Your task to perform on an android device: open app "Google News" (install if not already installed) Image 0: 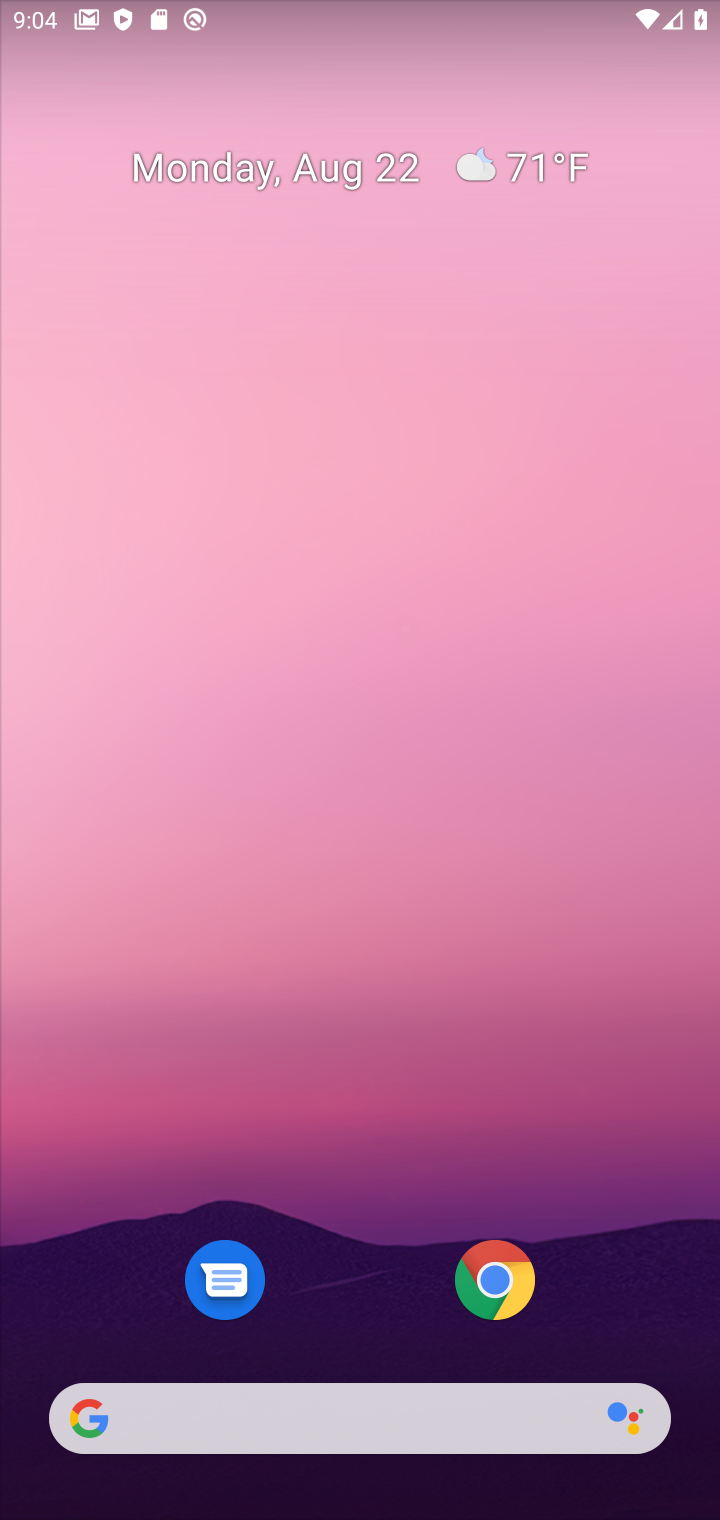
Step 0: drag from (335, 1295) to (604, 217)
Your task to perform on an android device: open app "Google News" (install if not already installed) Image 1: 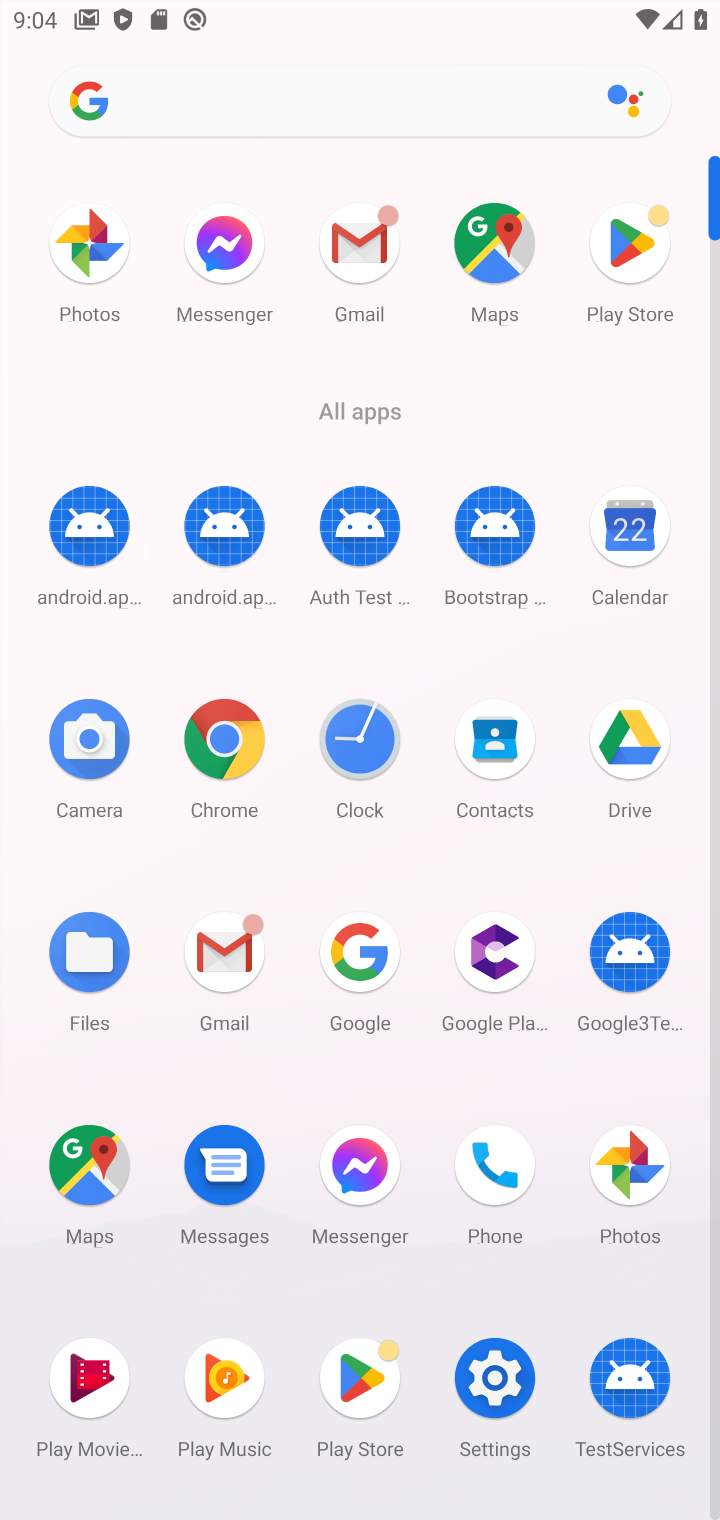
Step 1: click (640, 258)
Your task to perform on an android device: open app "Google News" (install if not already installed) Image 2: 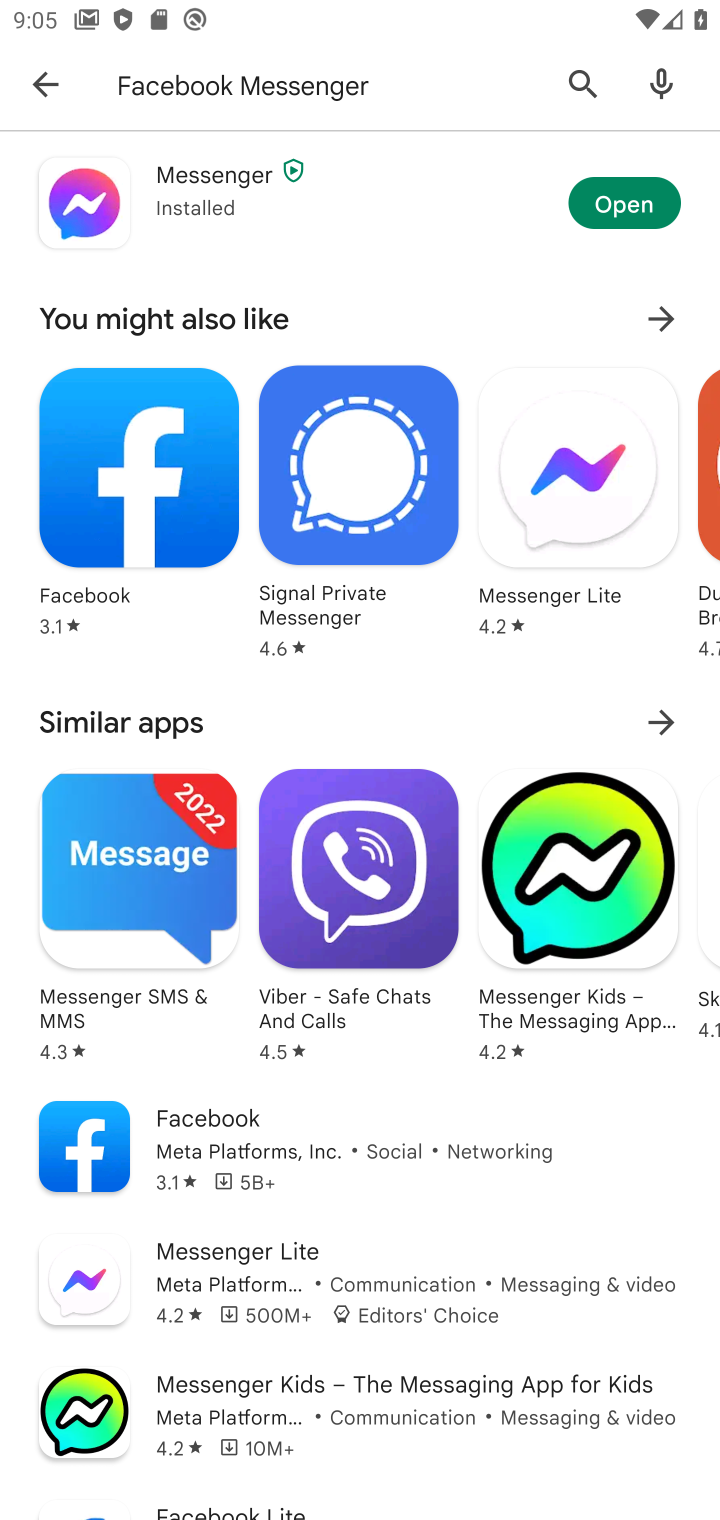
Step 2: press back button
Your task to perform on an android device: open app "Google News" (install if not already installed) Image 3: 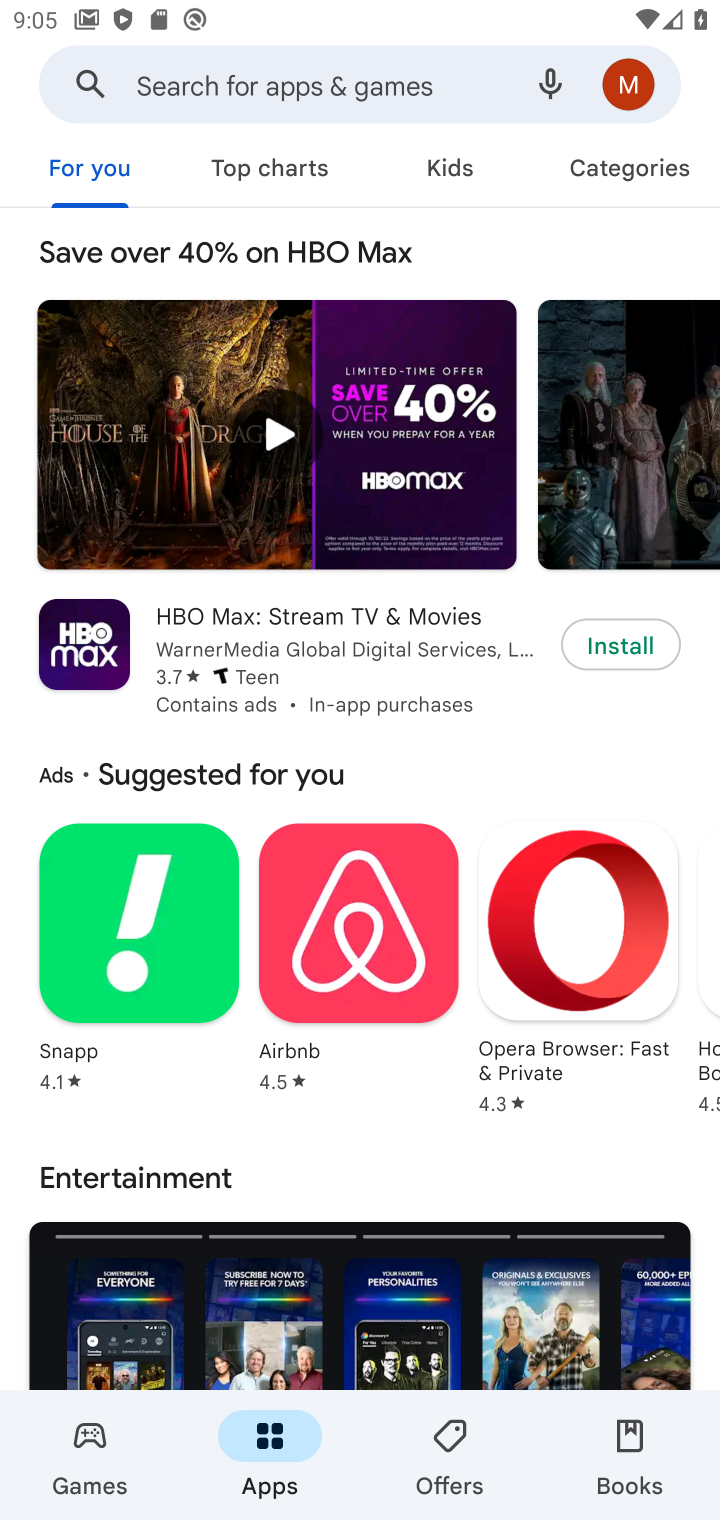
Step 3: click (301, 103)
Your task to perform on an android device: open app "Google News" (install if not already installed) Image 4: 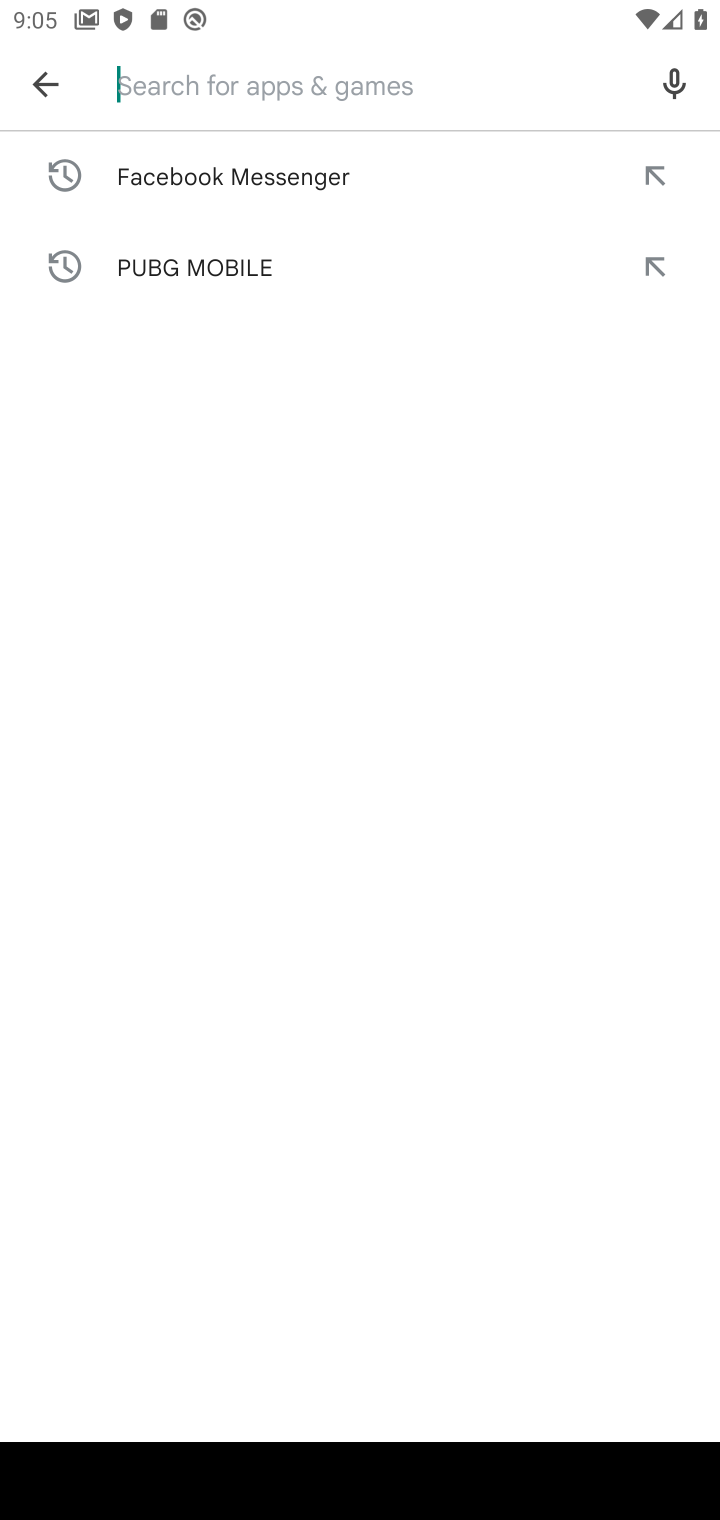
Step 4: type "Google News"
Your task to perform on an android device: open app "Google News" (install if not already installed) Image 5: 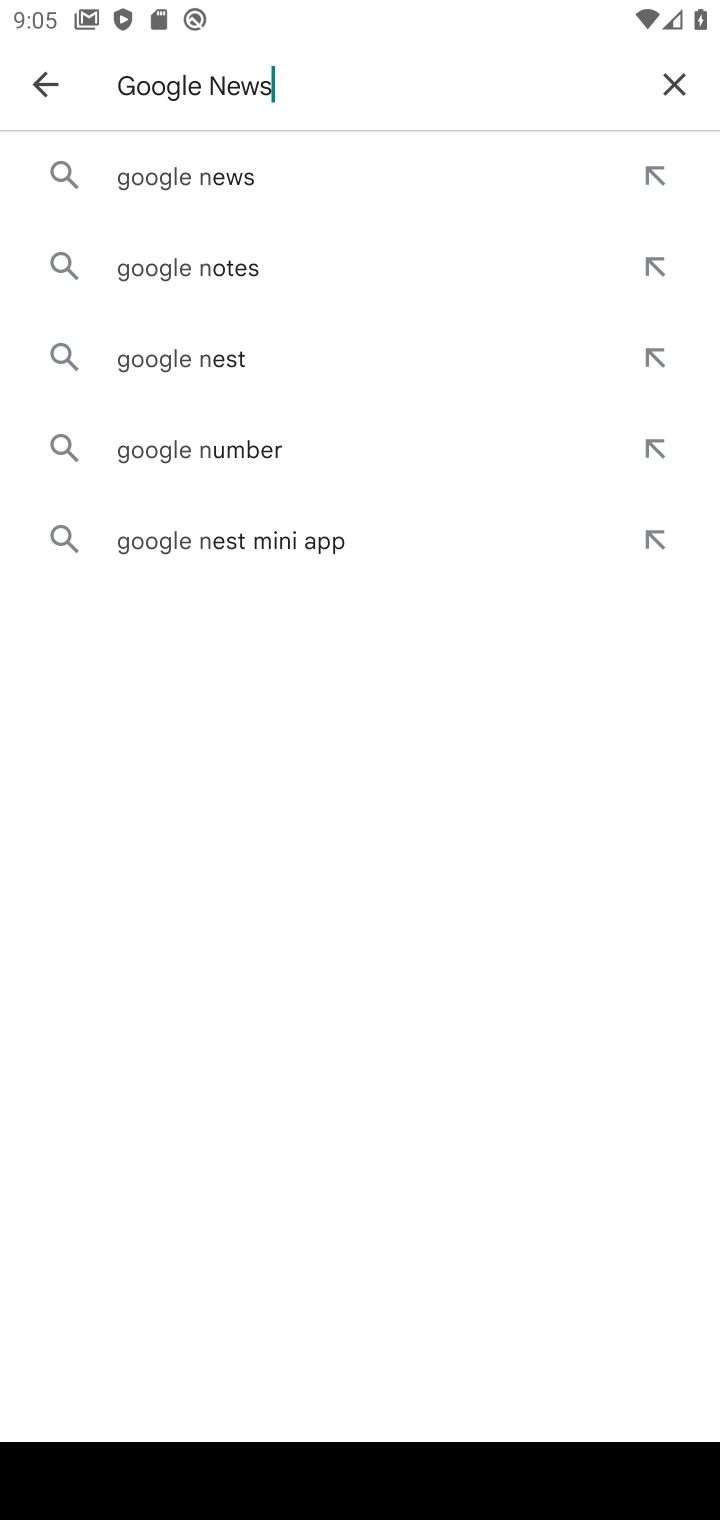
Step 5: press enter
Your task to perform on an android device: open app "Google News" (install if not already installed) Image 6: 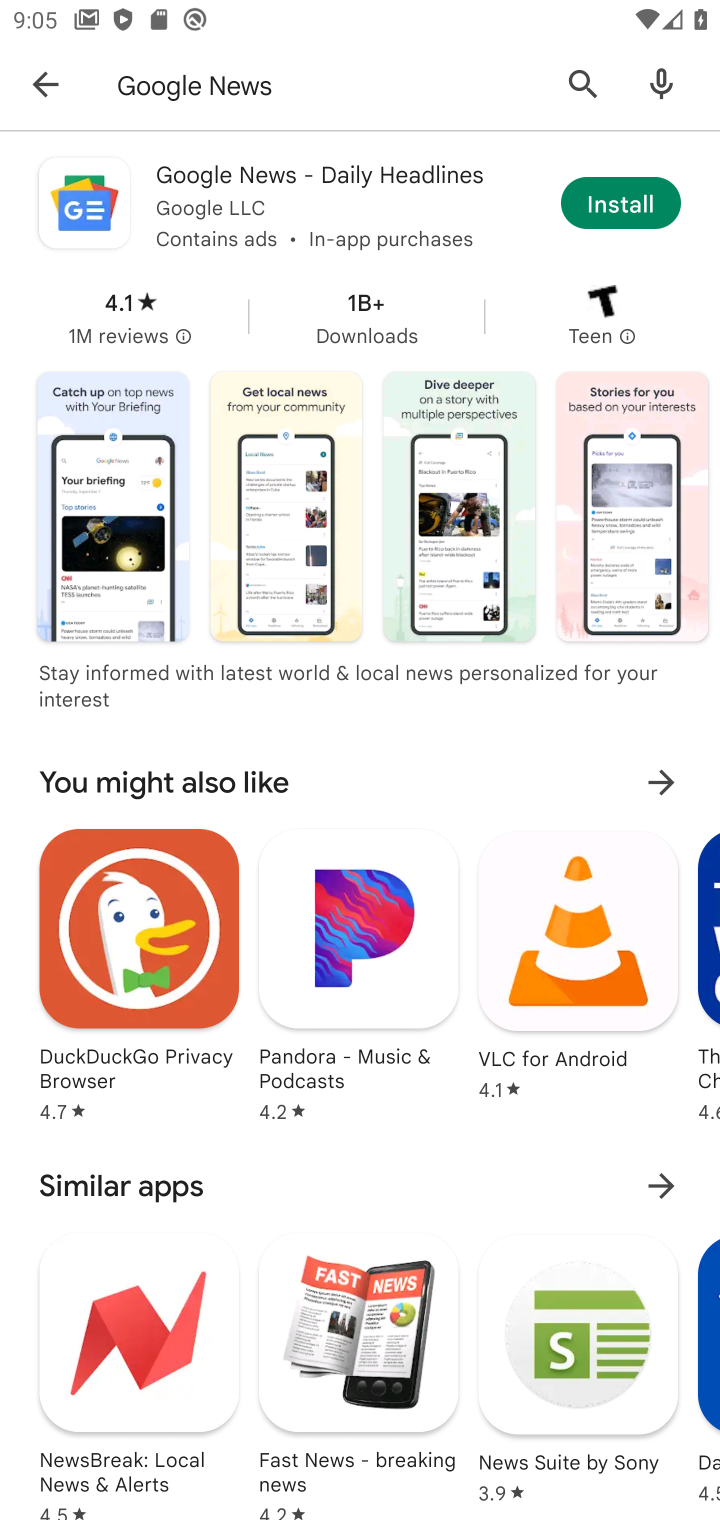
Step 6: click (607, 211)
Your task to perform on an android device: open app "Google News" (install if not already installed) Image 7: 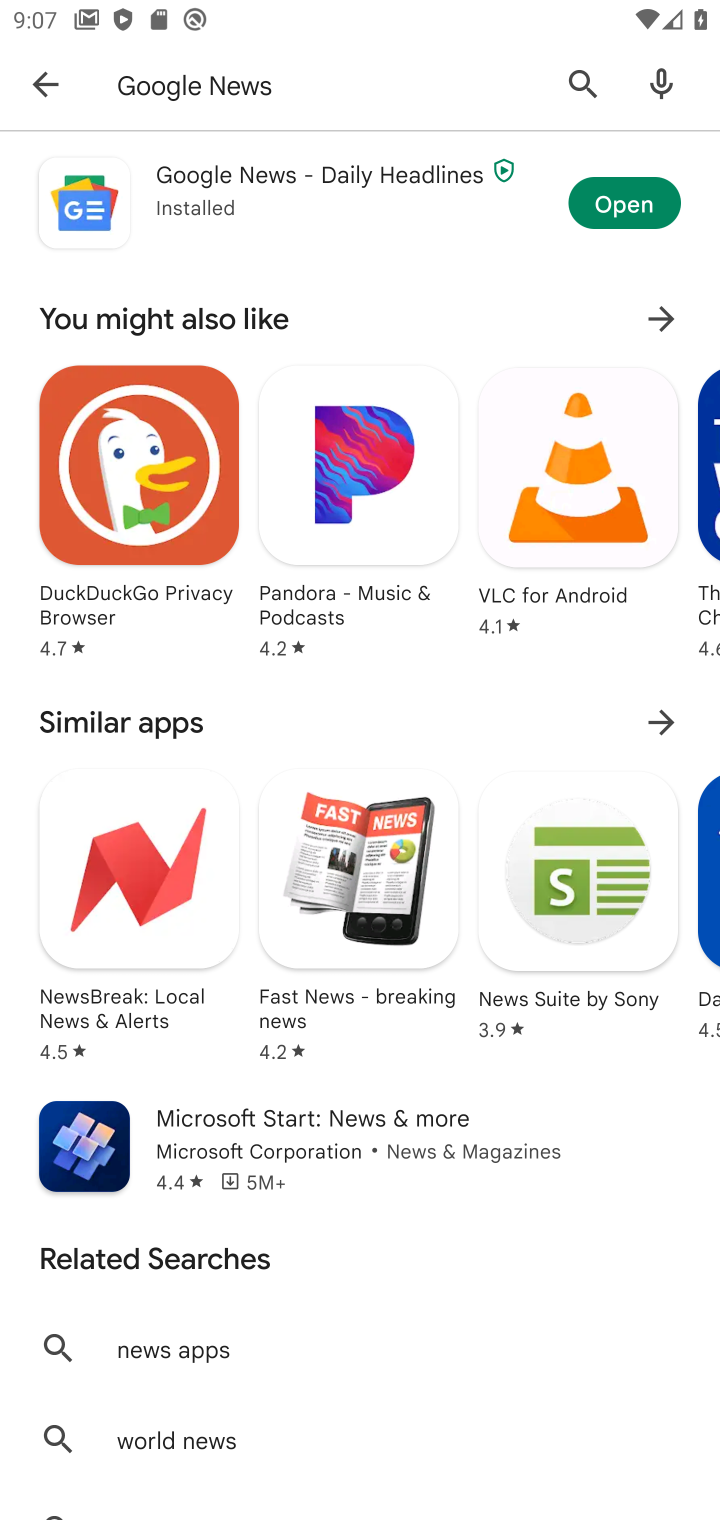
Step 7: click (590, 215)
Your task to perform on an android device: open app "Google News" (install if not already installed) Image 8: 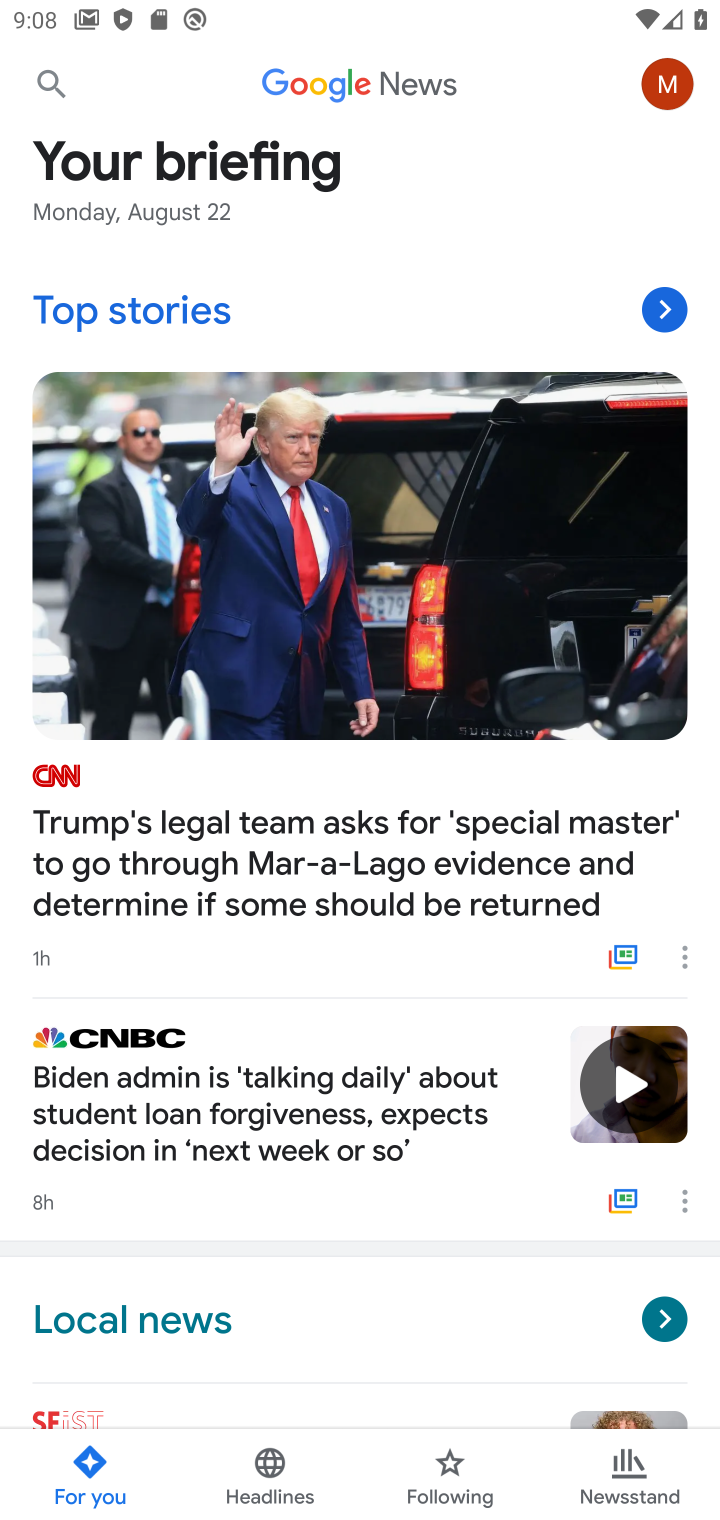
Step 8: task complete